Your task to perform on an android device: Open maps Image 0: 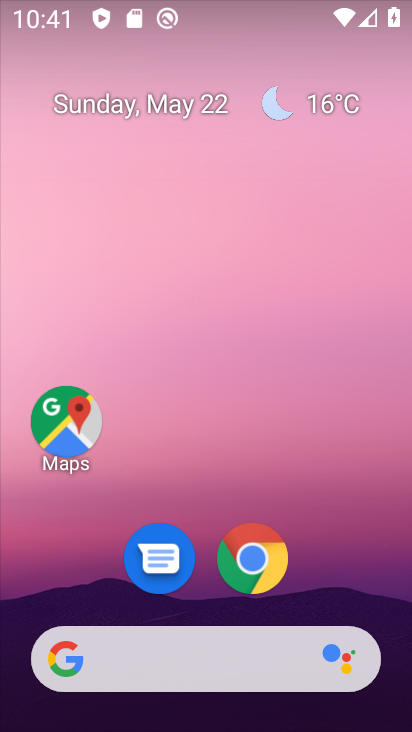
Step 0: click (65, 424)
Your task to perform on an android device: Open maps Image 1: 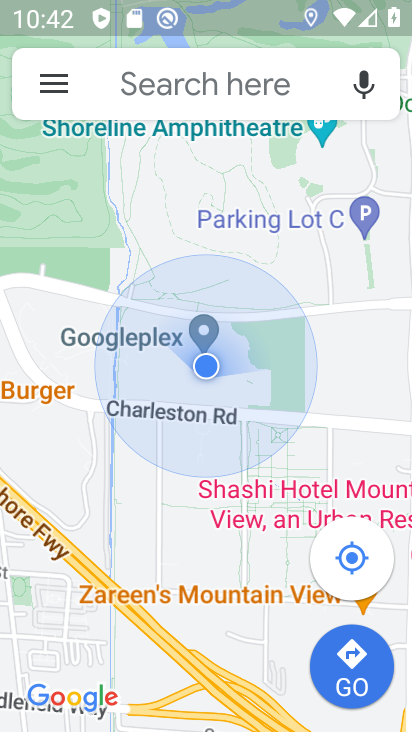
Step 1: task complete